Your task to perform on an android device: Open Google Chrome and open the bookmarks view Image 0: 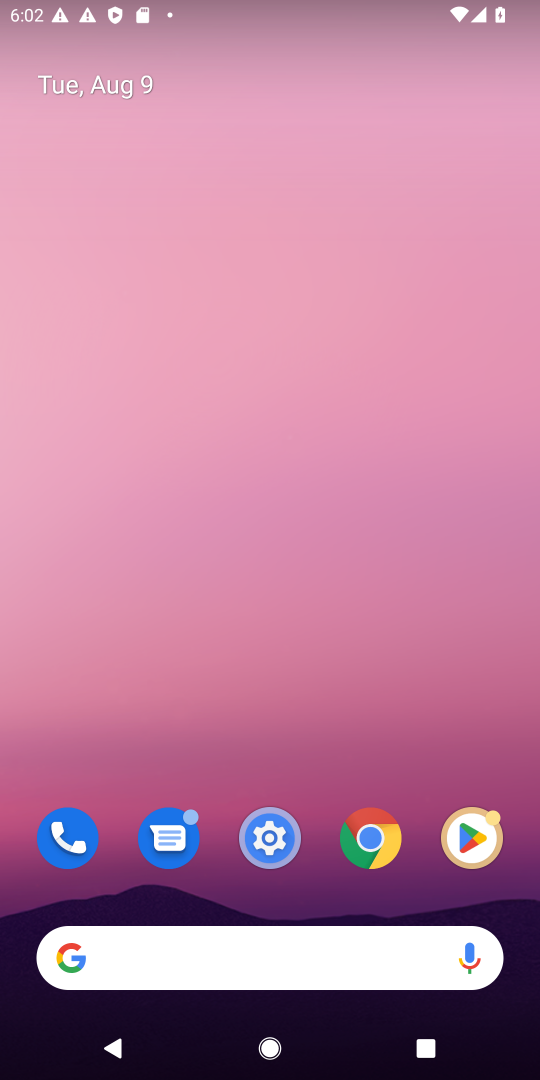
Step 0: click (375, 824)
Your task to perform on an android device: Open Google Chrome and open the bookmarks view Image 1: 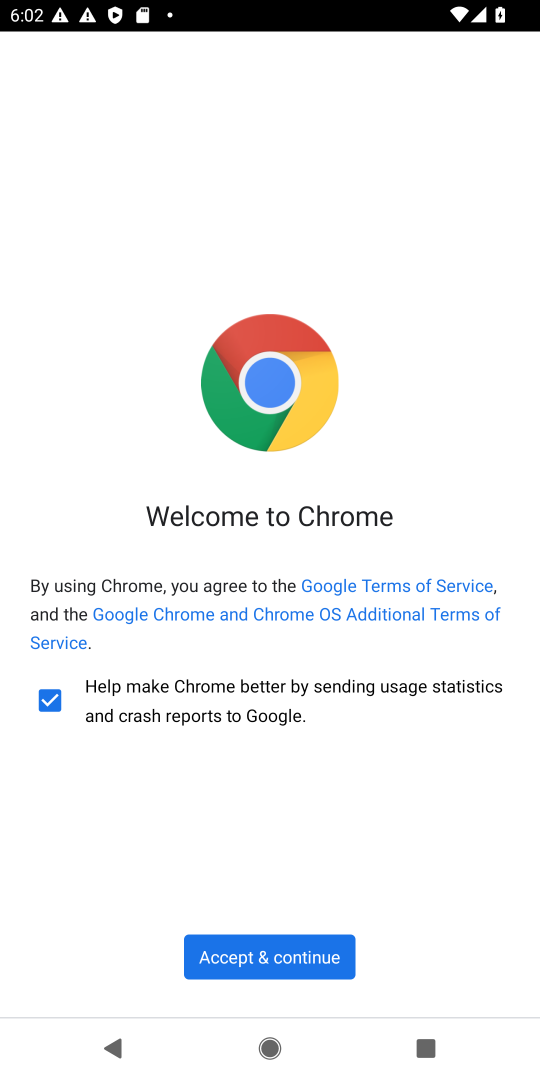
Step 1: click (287, 967)
Your task to perform on an android device: Open Google Chrome and open the bookmarks view Image 2: 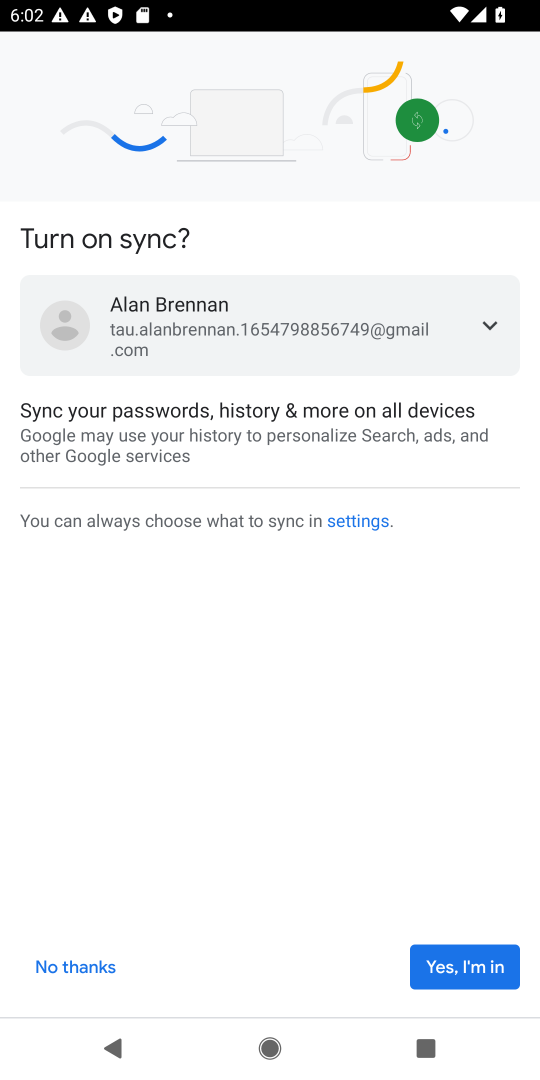
Step 2: click (431, 966)
Your task to perform on an android device: Open Google Chrome and open the bookmarks view Image 3: 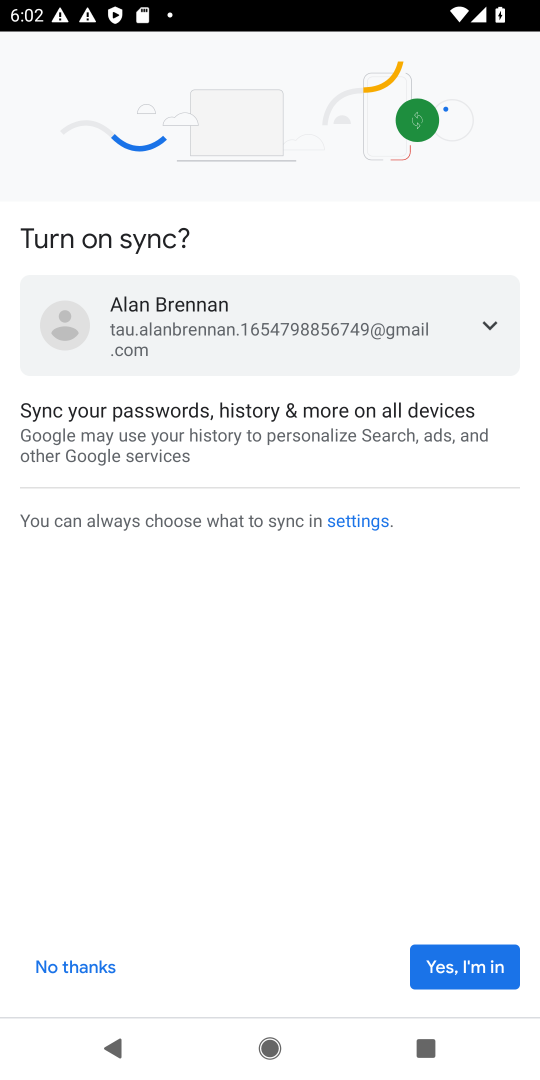
Step 3: click (488, 976)
Your task to perform on an android device: Open Google Chrome and open the bookmarks view Image 4: 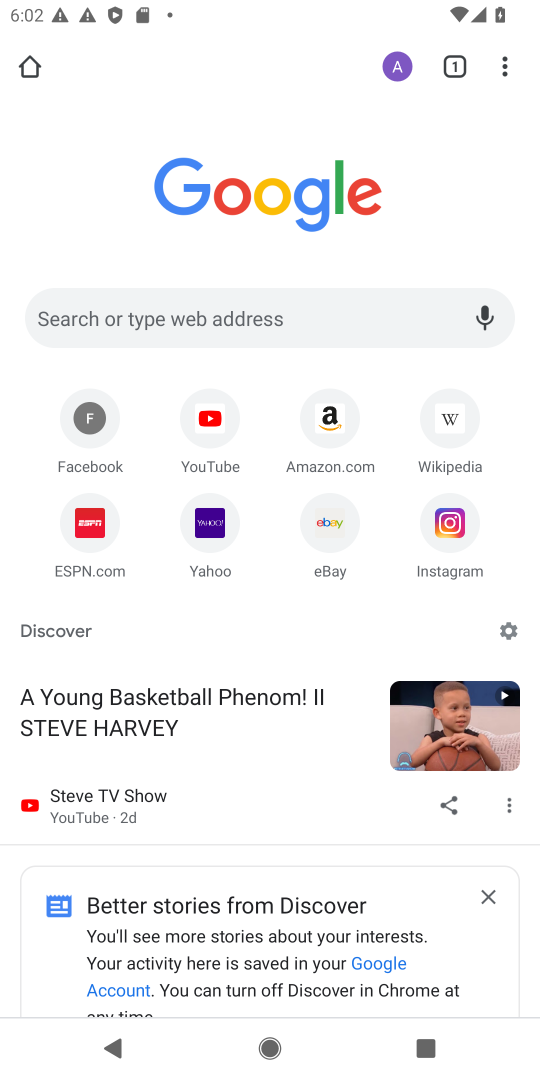
Step 4: click (506, 70)
Your task to perform on an android device: Open Google Chrome and open the bookmarks view Image 5: 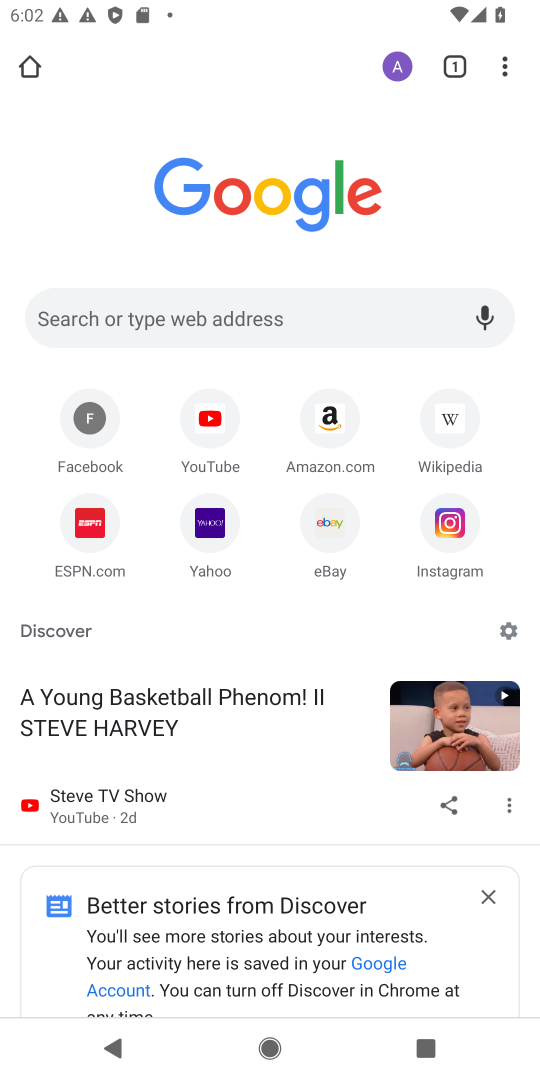
Step 5: click (502, 69)
Your task to perform on an android device: Open Google Chrome and open the bookmarks view Image 6: 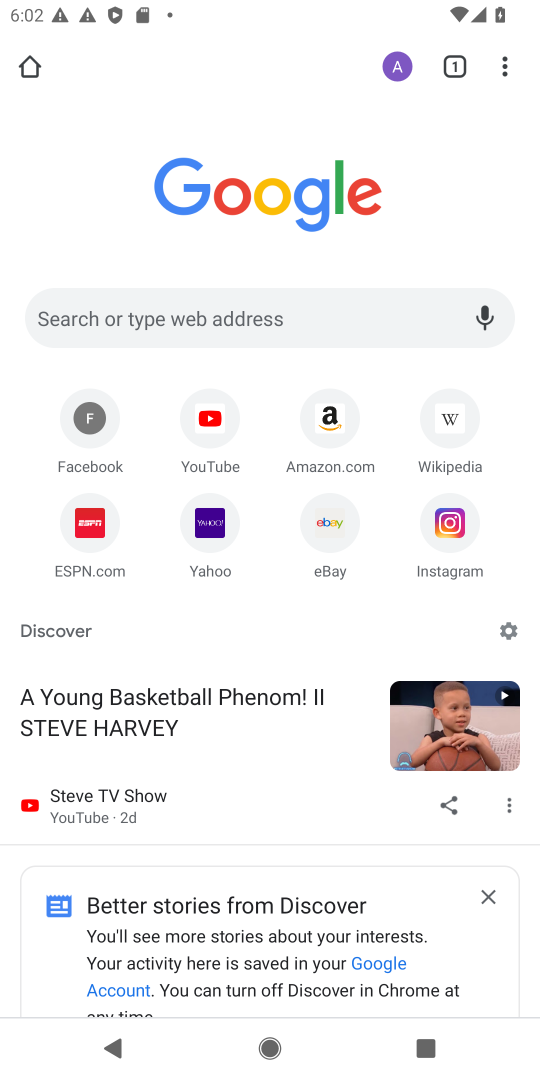
Step 6: click (492, 74)
Your task to perform on an android device: Open Google Chrome and open the bookmarks view Image 7: 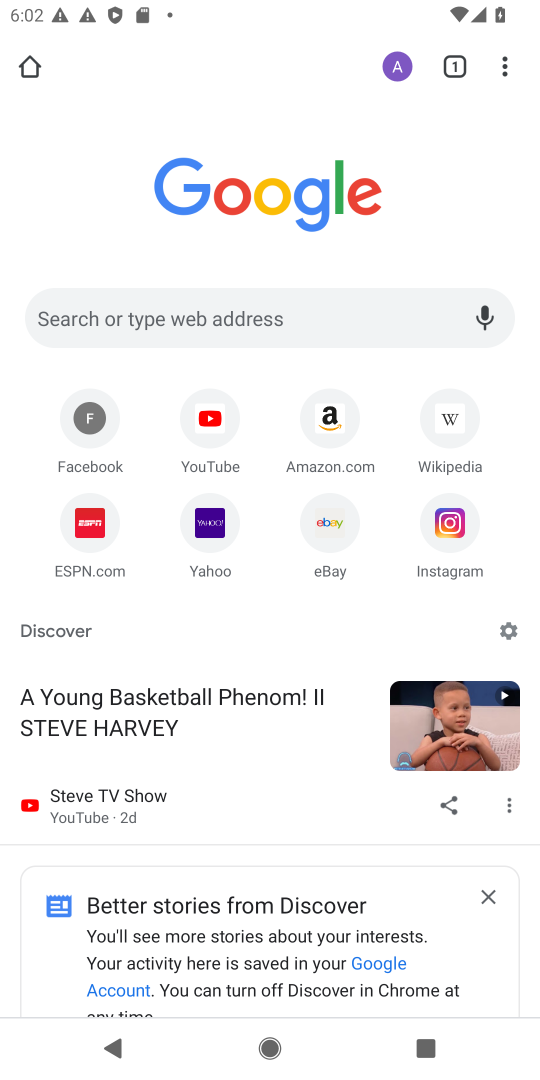
Step 7: click (506, 71)
Your task to perform on an android device: Open Google Chrome and open the bookmarks view Image 8: 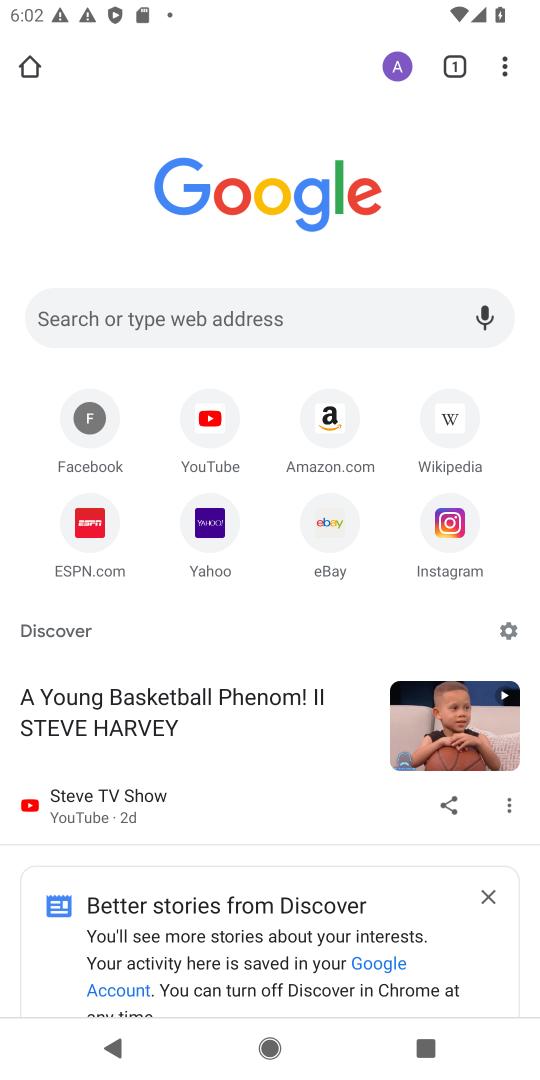
Step 8: click (510, 64)
Your task to perform on an android device: Open Google Chrome and open the bookmarks view Image 9: 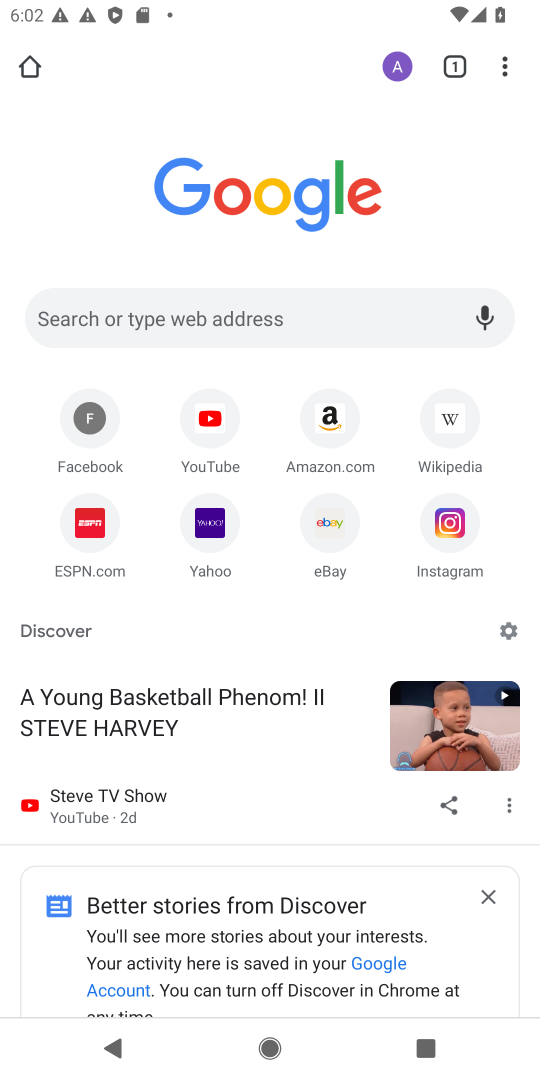
Step 9: click (502, 74)
Your task to perform on an android device: Open Google Chrome and open the bookmarks view Image 10: 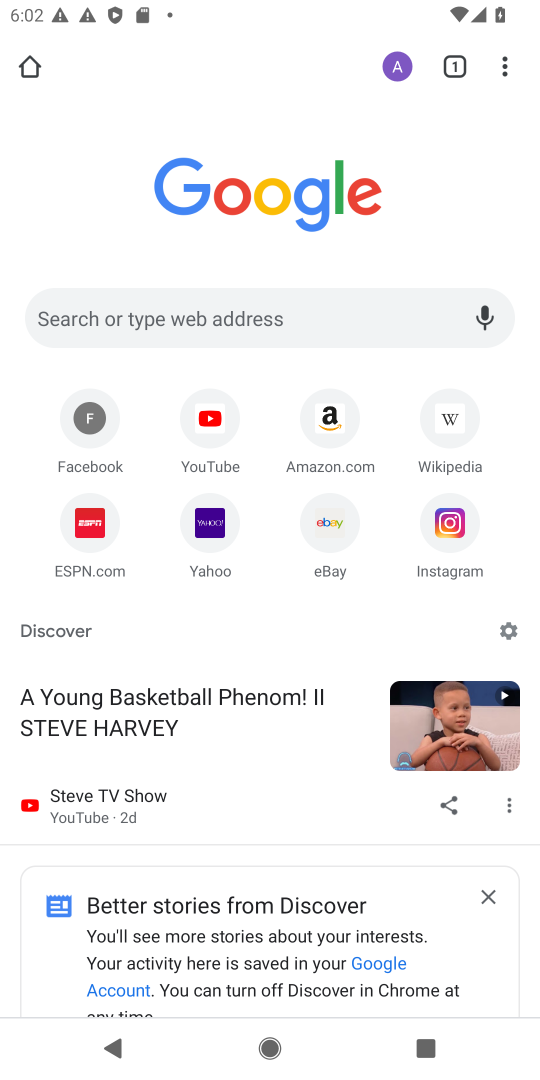
Step 10: click (491, 58)
Your task to perform on an android device: Open Google Chrome and open the bookmarks view Image 11: 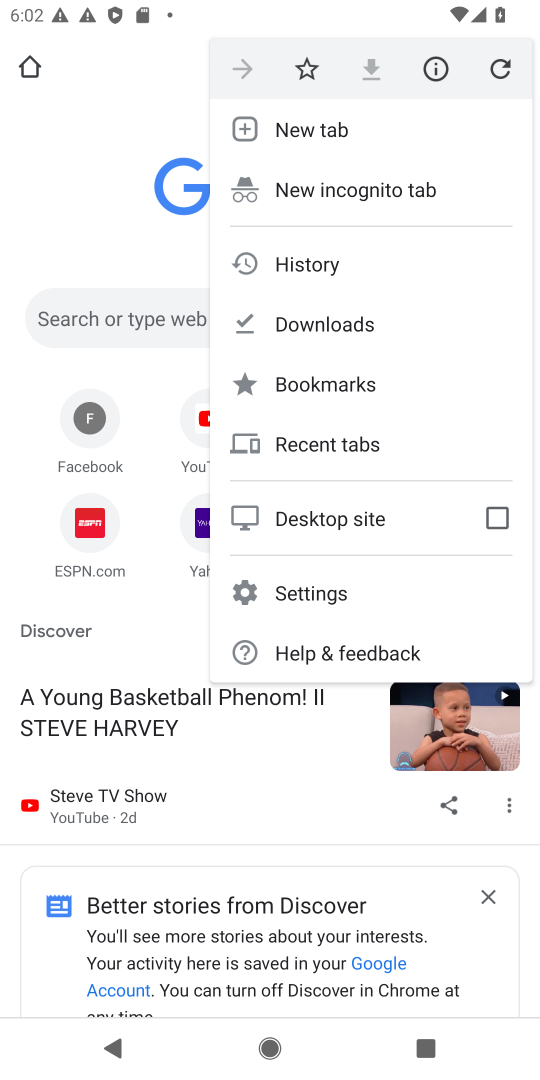
Step 11: click (311, 385)
Your task to perform on an android device: Open Google Chrome and open the bookmarks view Image 12: 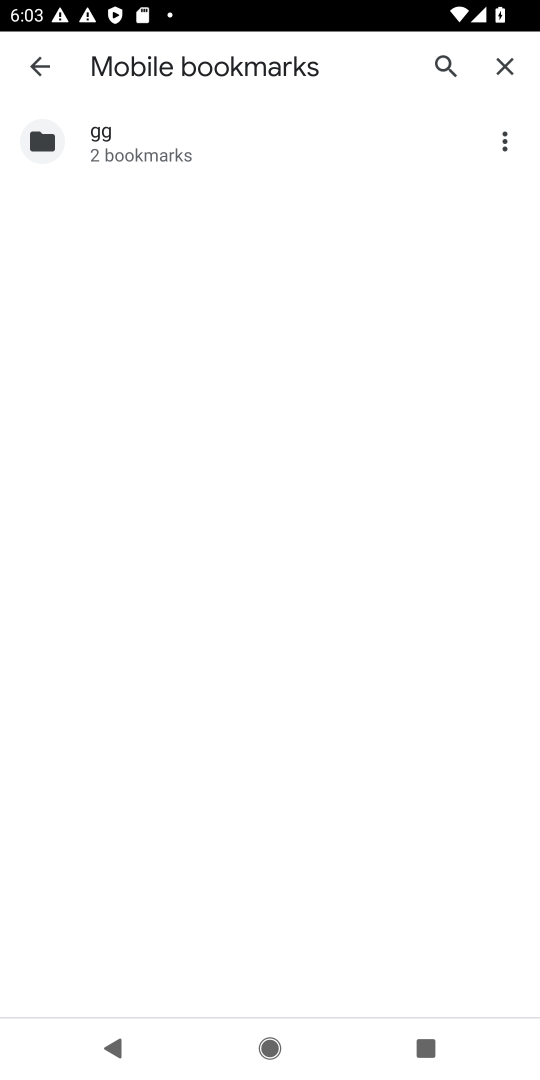
Step 12: task complete